Your task to perform on an android device: Show me productivity apps on the Play Store Image 0: 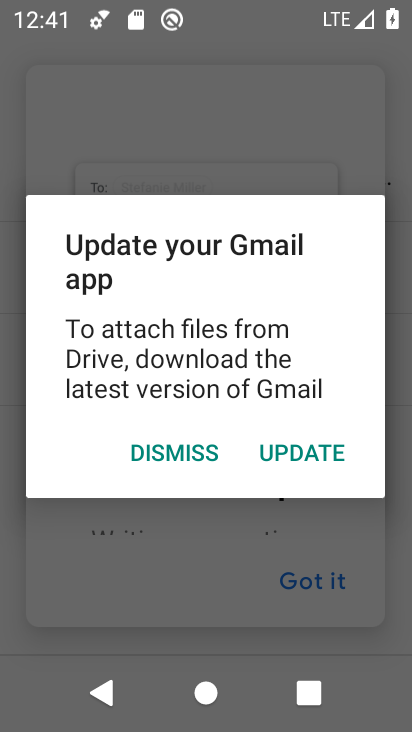
Step 0: press home button
Your task to perform on an android device: Show me productivity apps on the Play Store Image 1: 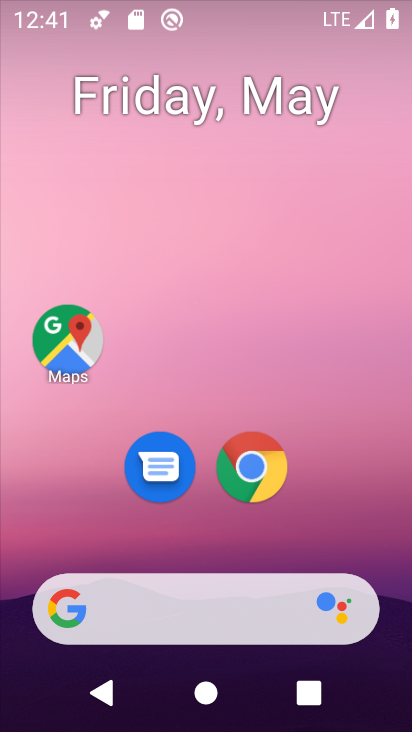
Step 1: drag from (370, 507) to (393, 55)
Your task to perform on an android device: Show me productivity apps on the Play Store Image 2: 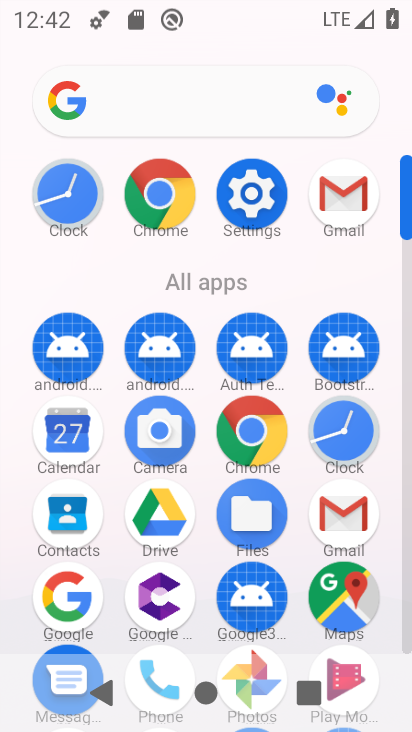
Step 2: drag from (399, 361) to (3, 445)
Your task to perform on an android device: Show me productivity apps on the Play Store Image 3: 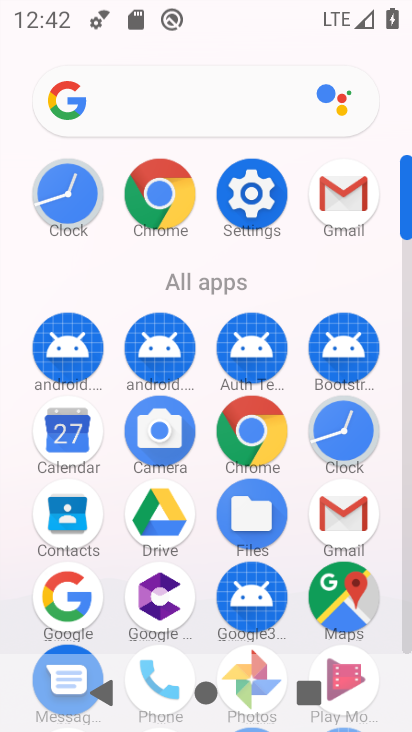
Step 3: drag from (385, 634) to (345, 273)
Your task to perform on an android device: Show me productivity apps on the Play Store Image 4: 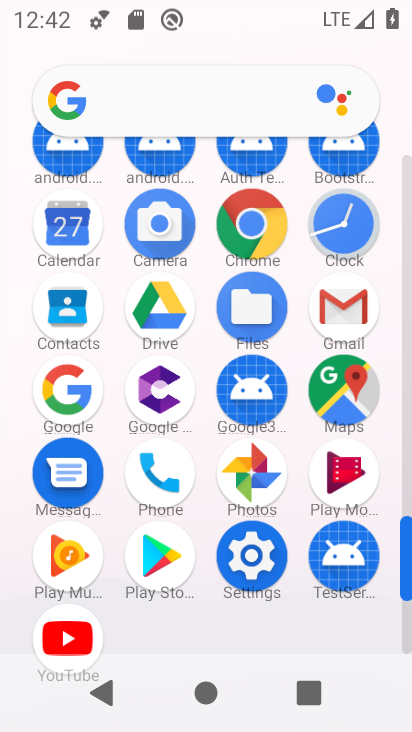
Step 4: click (145, 552)
Your task to perform on an android device: Show me productivity apps on the Play Store Image 5: 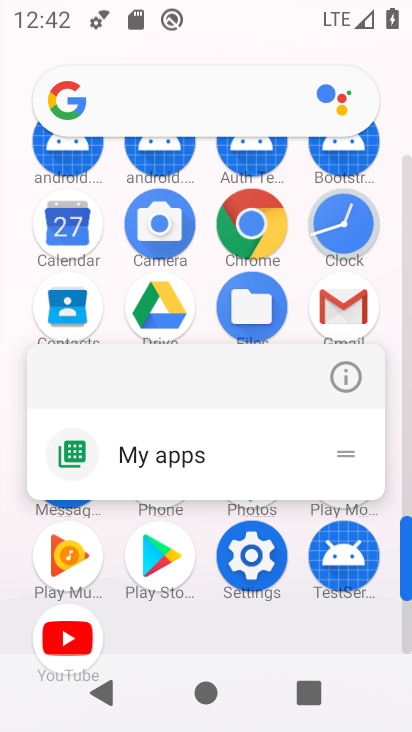
Step 5: click (145, 552)
Your task to perform on an android device: Show me productivity apps on the Play Store Image 6: 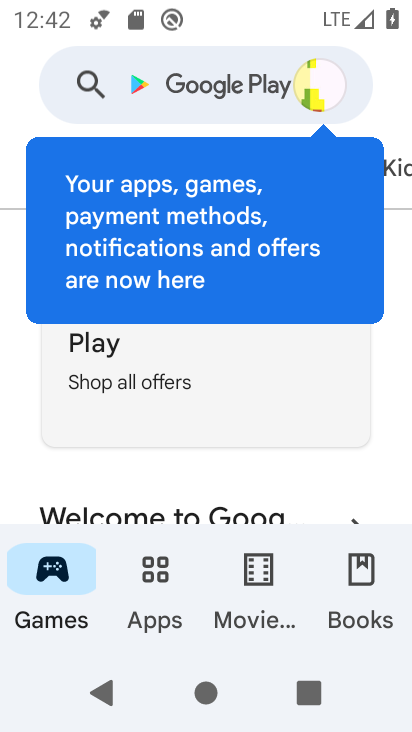
Step 6: click (220, 100)
Your task to perform on an android device: Show me productivity apps on the Play Store Image 7: 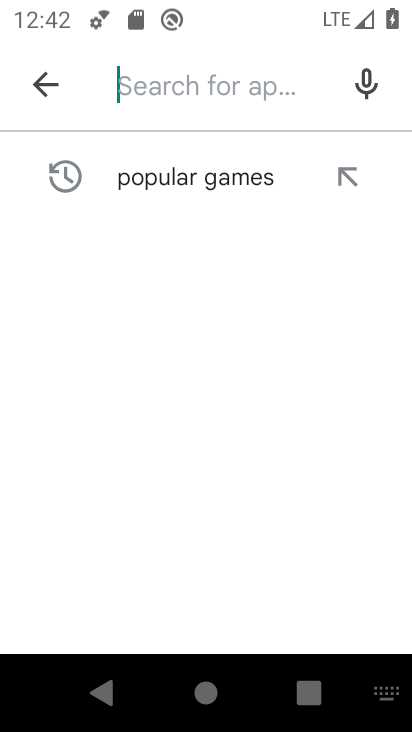
Step 7: type "productivity apps"
Your task to perform on an android device: Show me productivity apps on the Play Store Image 8: 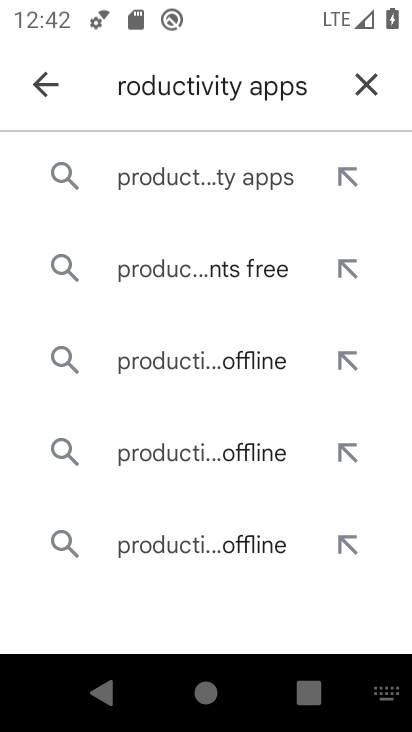
Step 8: click (236, 157)
Your task to perform on an android device: Show me productivity apps on the Play Store Image 9: 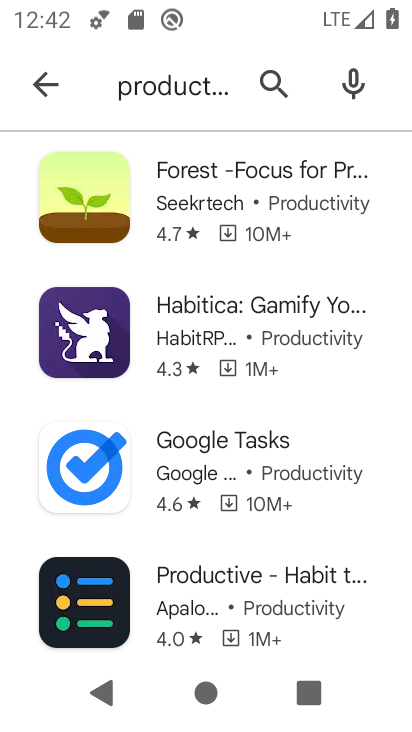
Step 9: task complete